Your task to perform on an android device: change the clock display to digital Image 0: 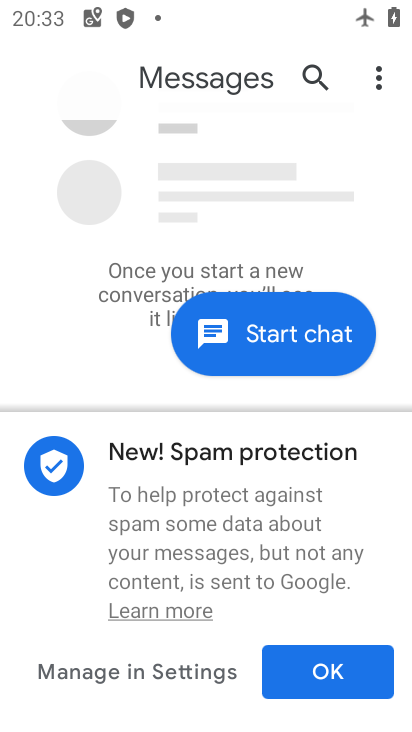
Step 0: press home button
Your task to perform on an android device: change the clock display to digital Image 1: 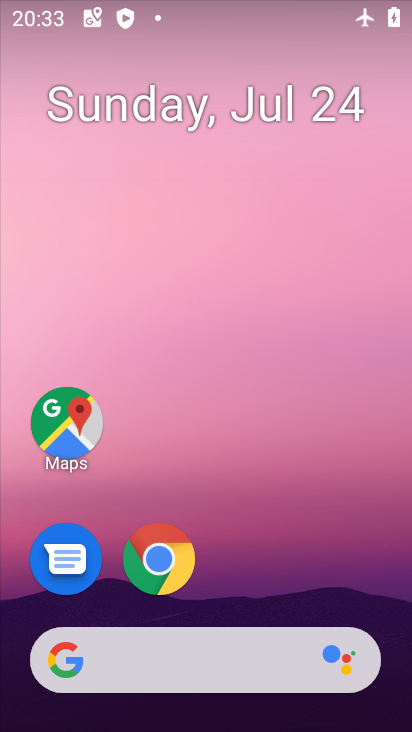
Step 1: drag from (350, 544) to (342, 113)
Your task to perform on an android device: change the clock display to digital Image 2: 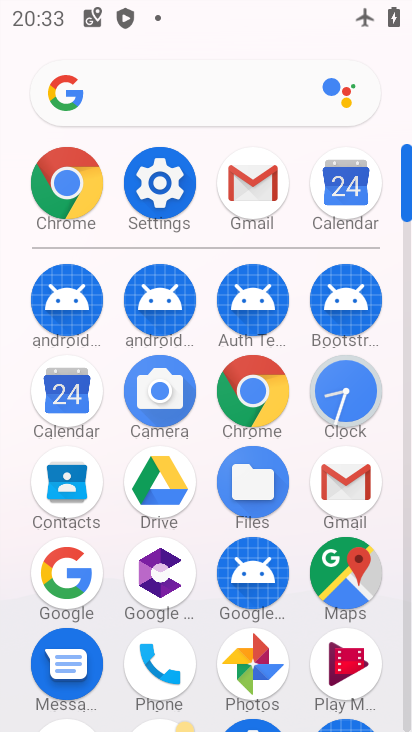
Step 2: click (344, 393)
Your task to perform on an android device: change the clock display to digital Image 3: 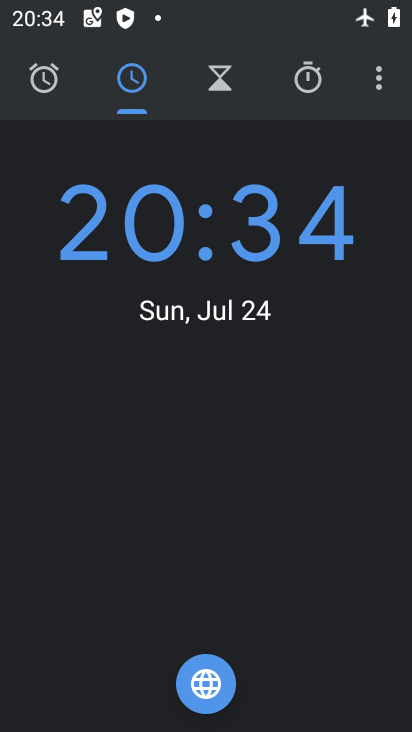
Step 3: click (377, 89)
Your task to perform on an android device: change the clock display to digital Image 4: 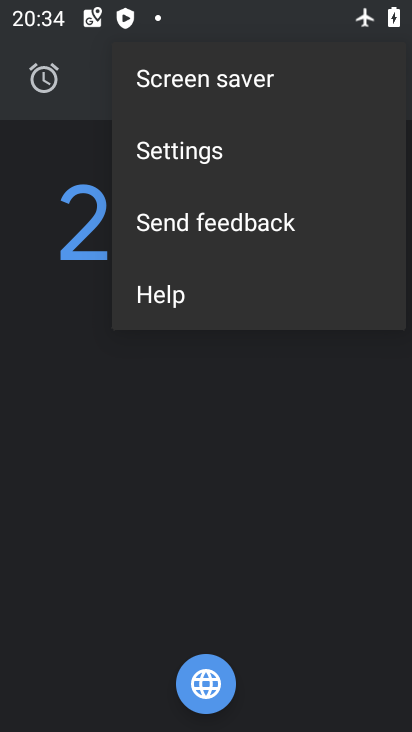
Step 4: click (245, 151)
Your task to perform on an android device: change the clock display to digital Image 5: 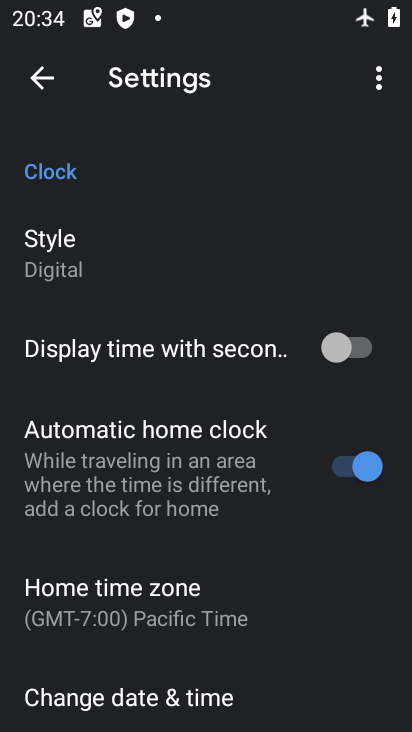
Step 5: task complete